Your task to perform on an android device: What's the weather going to be this weekend? Image 0: 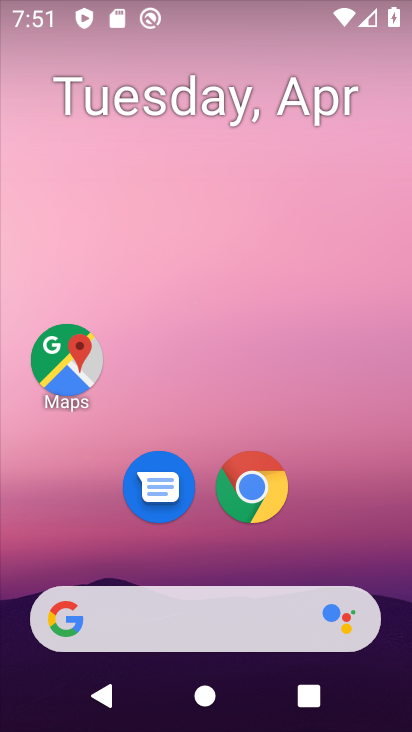
Step 0: drag from (218, 582) to (221, 251)
Your task to perform on an android device: What's the weather going to be this weekend? Image 1: 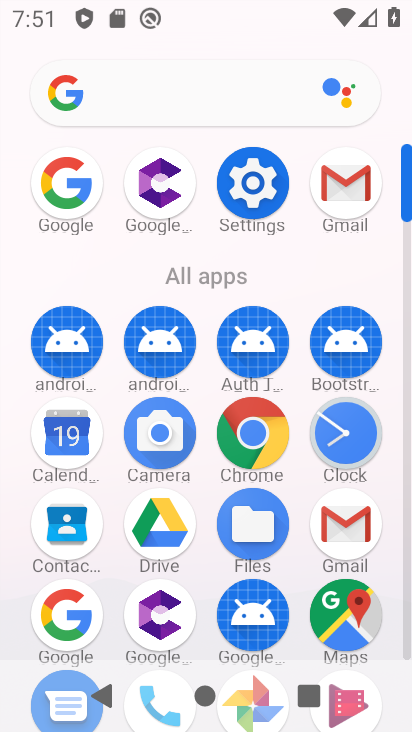
Step 1: click (77, 190)
Your task to perform on an android device: What's the weather going to be this weekend? Image 2: 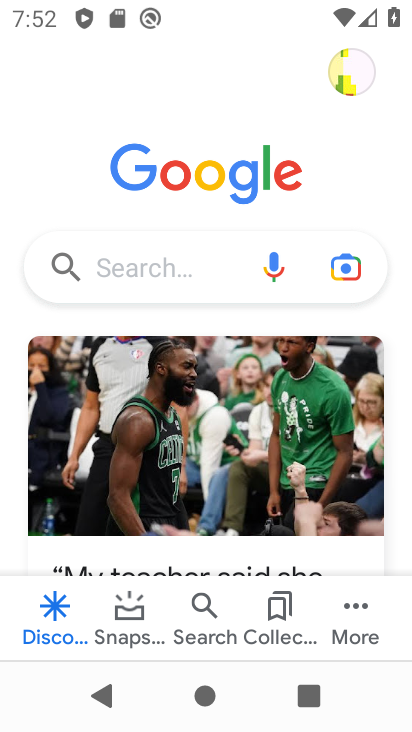
Step 2: click (147, 273)
Your task to perform on an android device: What's the weather going to be this weekend? Image 3: 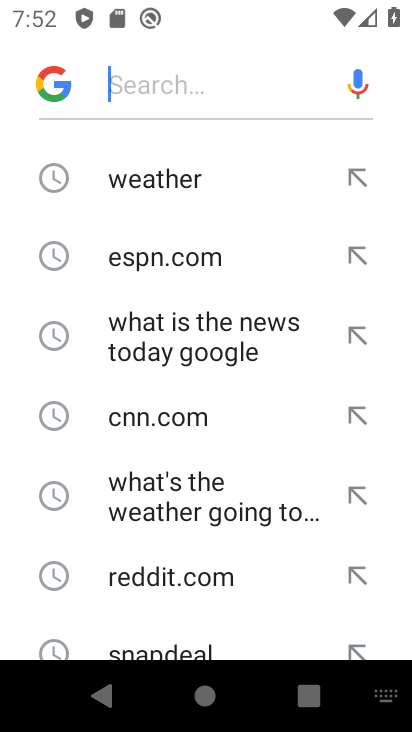
Step 3: click (184, 503)
Your task to perform on an android device: What's the weather going to be this weekend? Image 4: 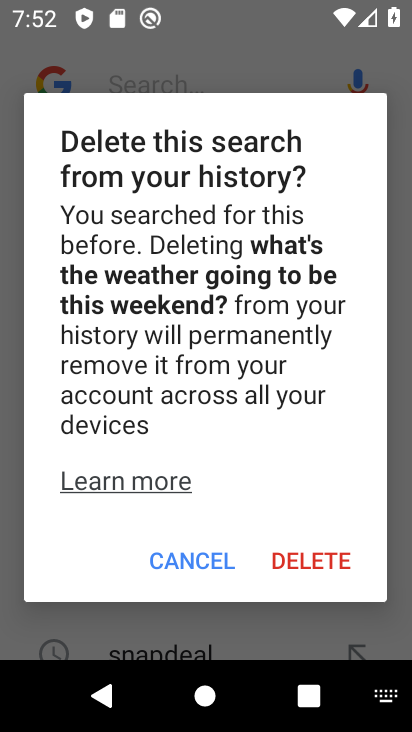
Step 4: click (196, 569)
Your task to perform on an android device: What's the weather going to be this weekend? Image 5: 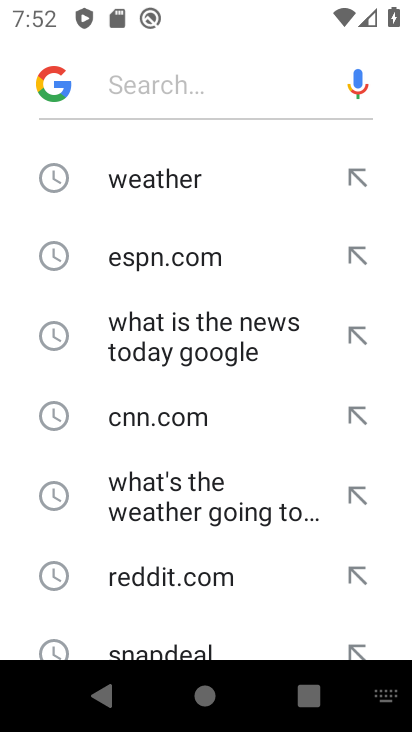
Step 5: click (178, 514)
Your task to perform on an android device: What's the weather going to be this weekend? Image 6: 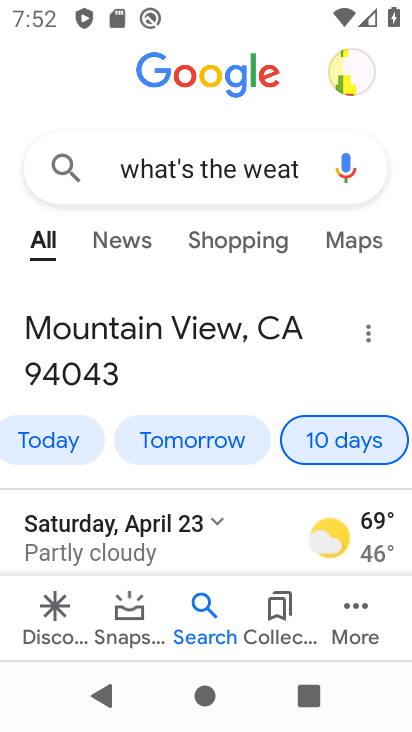
Step 6: click (200, 446)
Your task to perform on an android device: What's the weather going to be this weekend? Image 7: 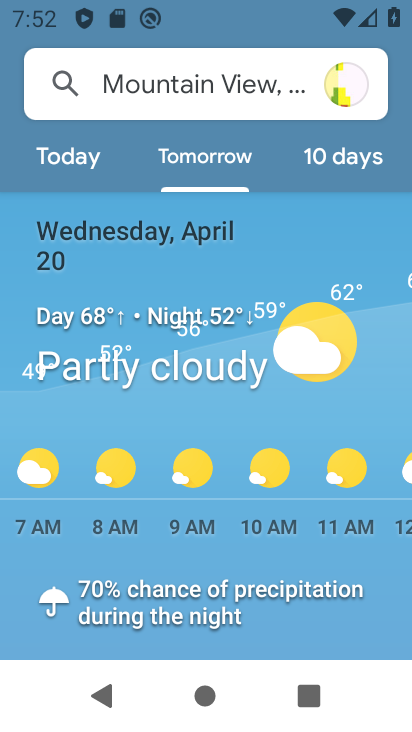
Step 7: task complete